Your task to perform on an android device: See recent photos Image 0: 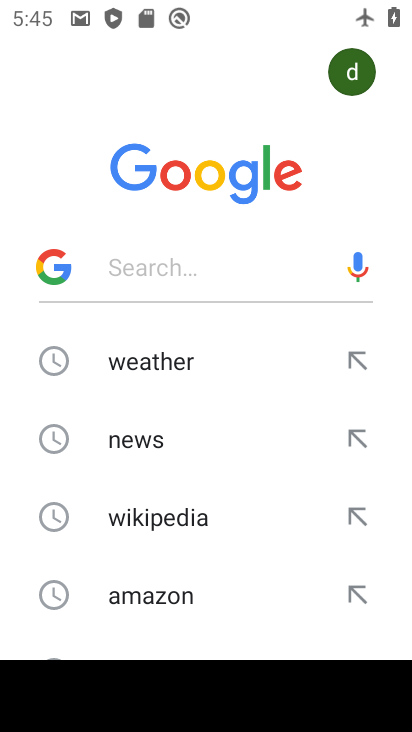
Step 0: press home button
Your task to perform on an android device: See recent photos Image 1: 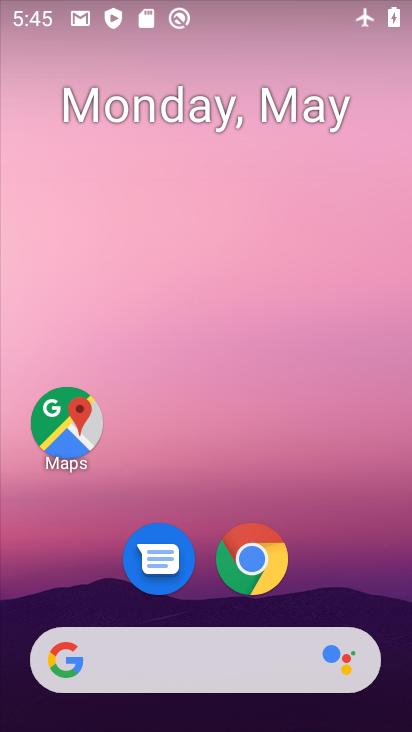
Step 1: drag from (326, 527) to (268, 7)
Your task to perform on an android device: See recent photos Image 2: 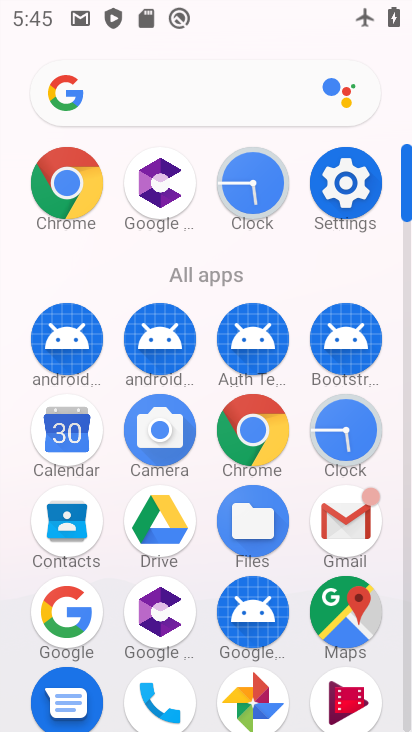
Step 2: click (260, 691)
Your task to perform on an android device: See recent photos Image 3: 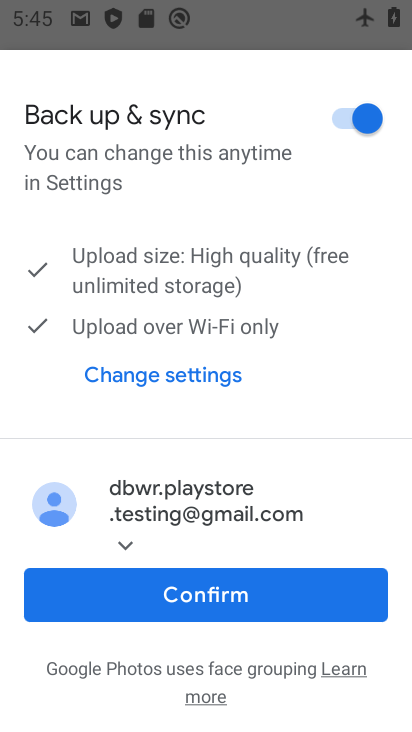
Step 3: click (191, 651)
Your task to perform on an android device: See recent photos Image 4: 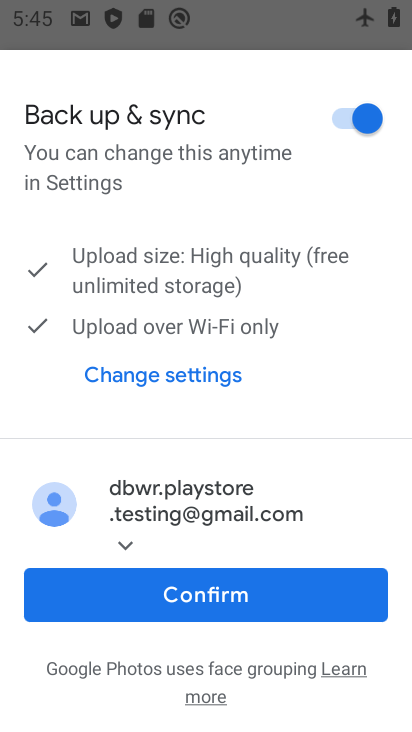
Step 4: click (213, 599)
Your task to perform on an android device: See recent photos Image 5: 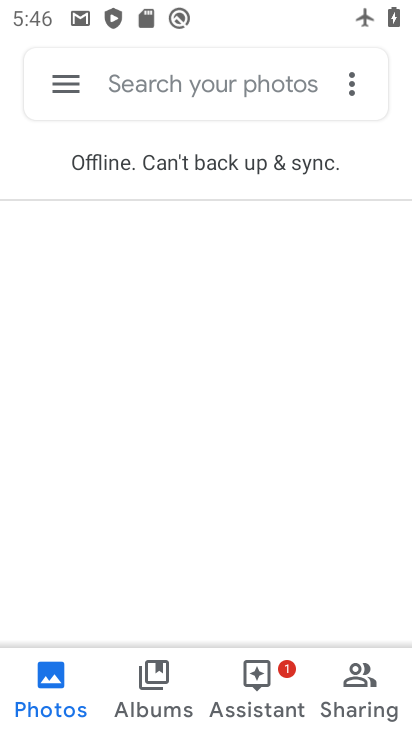
Step 5: click (110, 167)
Your task to perform on an android device: See recent photos Image 6: 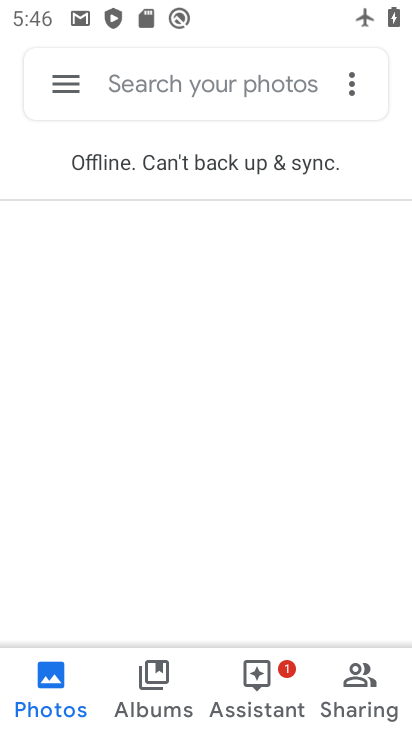
Step 6: task complete